Your task to perform on an android device: find photos in the google photos app Image 0: 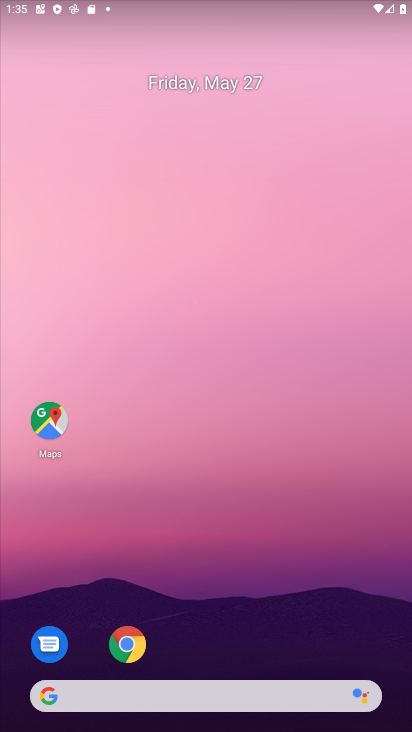
Step 0: drag from (290, 601) to (296, 3)
Your task to perform on an android device: find photos in the google photos app Image 1: 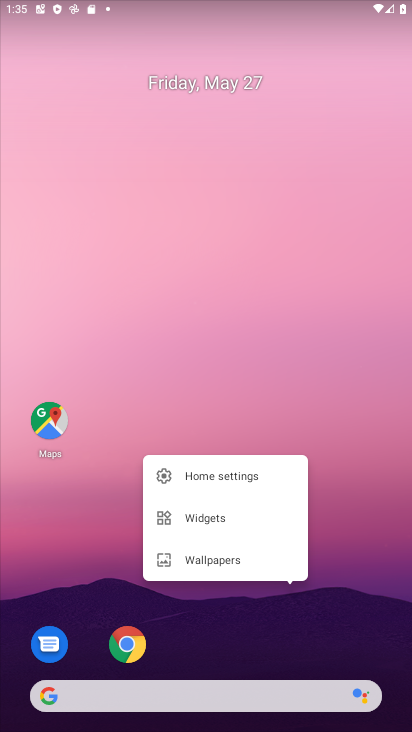
Step 1: click (404, 423)
Your task to perform on an android device: find photos in the google photos app Image 2: 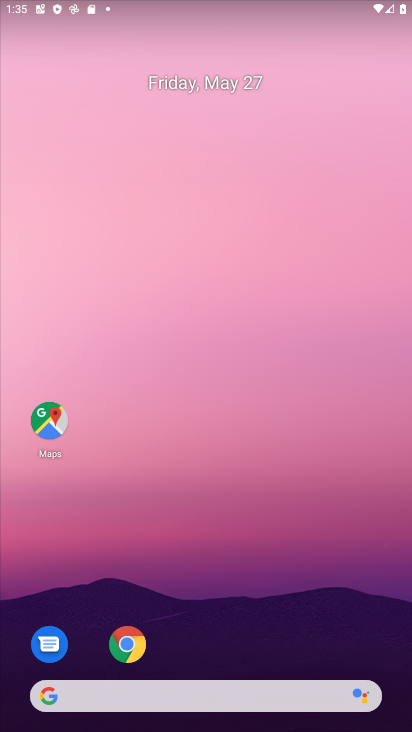
Step 2: drag from (350, 653) to (292, 8)
Your task to perform on an android device: find photos in the google photos app Image 3: 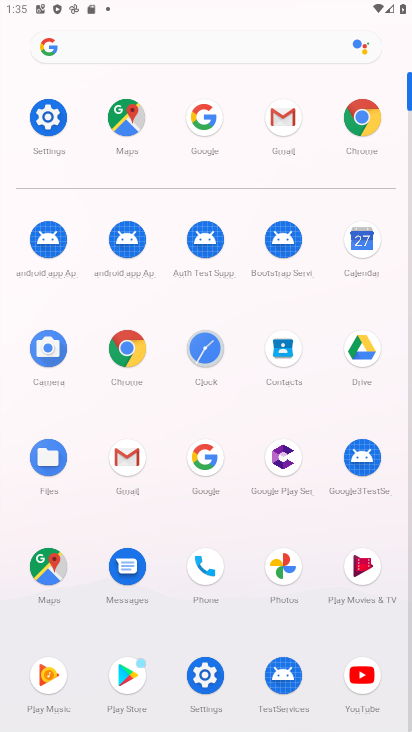
Step 3: click (289, 555)
Your task to perform on an android device: find photos in the google photos app Image 4: 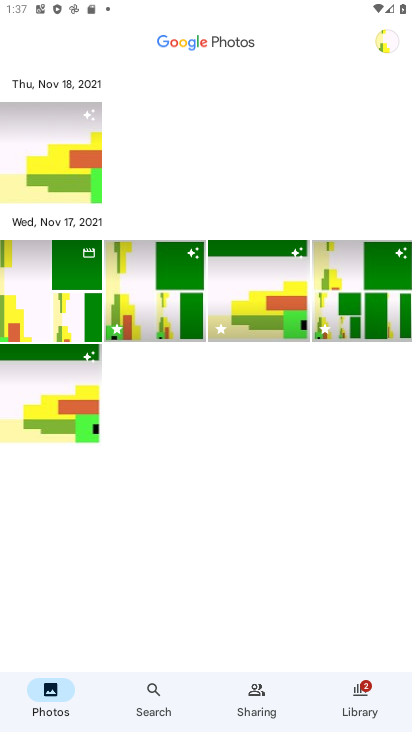
Step 4: task complete